Your task to perform on an android device: turn off improve location accuracy Image 0: 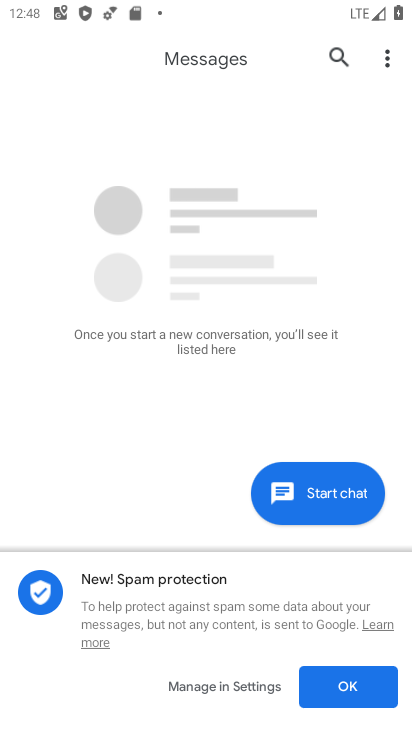
Step 0: press home button
Your task to perform on an android device: turn off improve location accuracy Image 1: 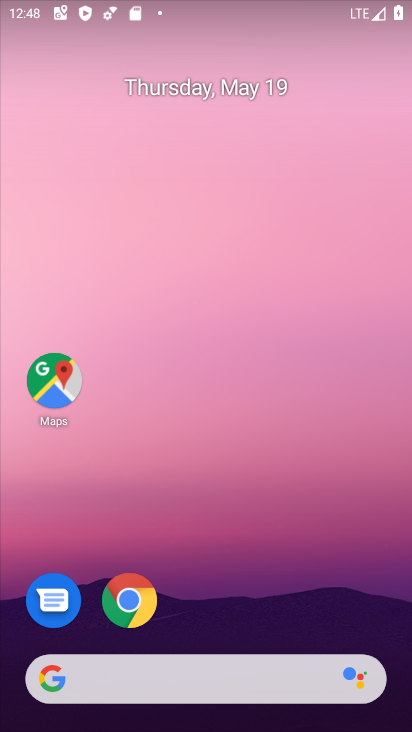
Step 1: drag from (259, 490) to (235, 81)
Your task to perform on an android device: turn off improve location accuracy Image 2: 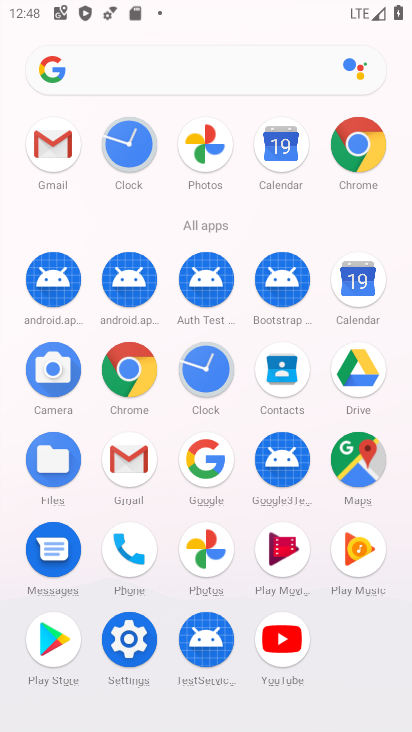
Step 2: click (129, 636)
Your task to perform on an android device: turn off improve location accuracy Image 3: 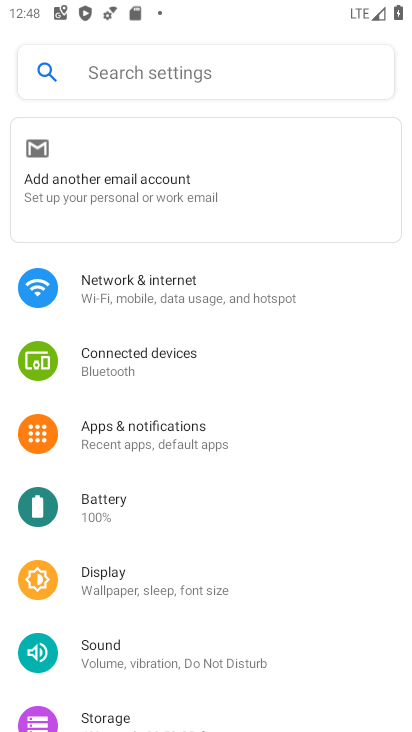
Step 3: drag from (185, 532) to (198, 86)
Your task to perform on an android device: turn off improve location accuracy Image 4: 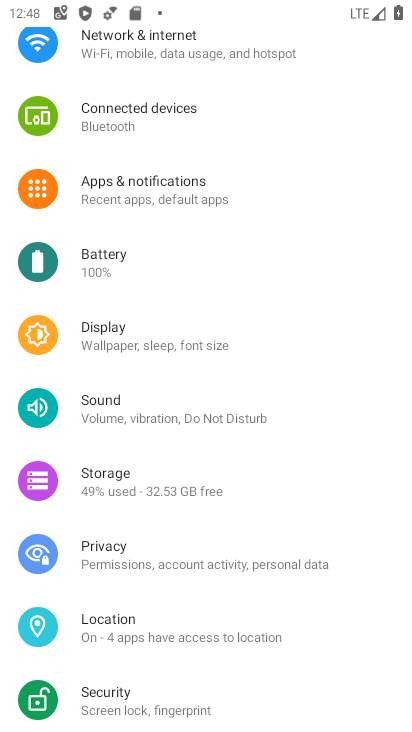
Step 4: drag from (265, 600) to (253, 202)
Your task to perform on an android device: turn off improve location accuracy Image 5: 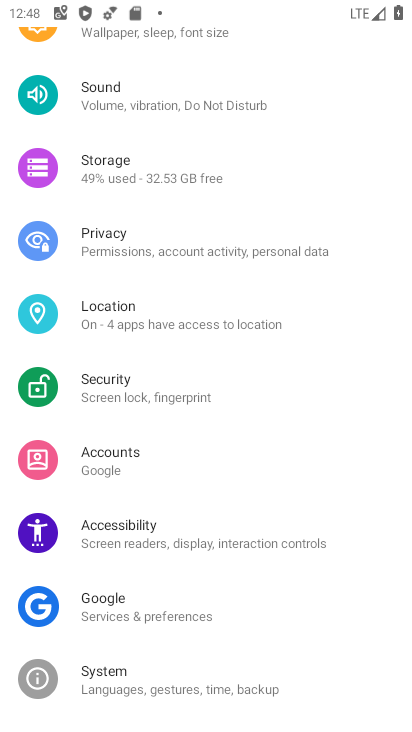
Step 5: click (131, 316)
Your task to perform on an android device: turn off improve location accuracy Image 6: 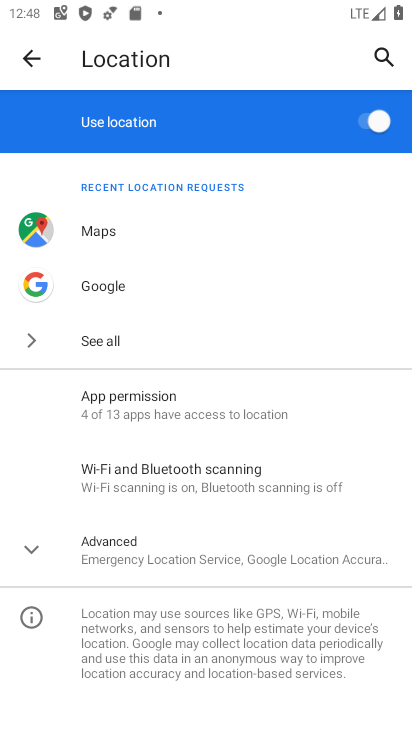
Step 6: click (33, 552)
Your task to perform on an android device: turn off improve location accuracy Image 7: 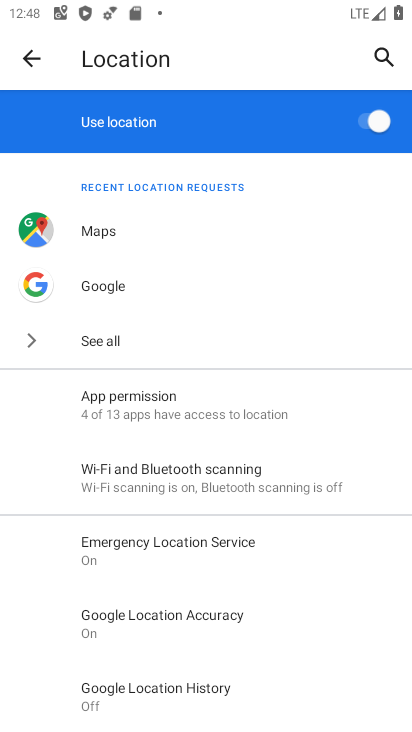
Step 7: click (205, 615)
Your task to perform on an android device: turn off improve location accuracy Image 8: 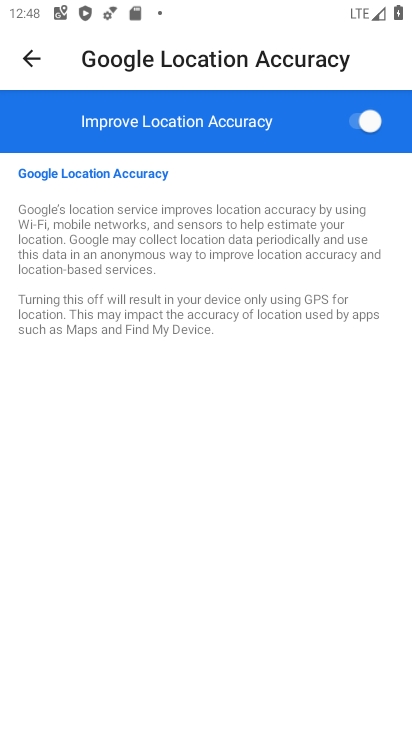
Step 8: click (368, 117)
Your task to perform on an android device: turn off improve location accuracy Image 9: 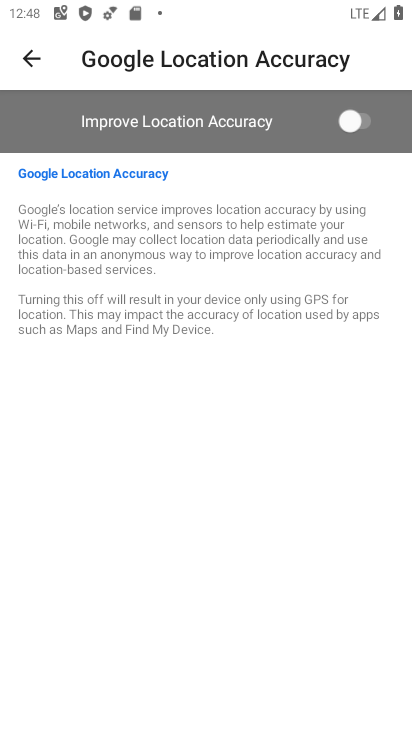
Step 9: task complete